Your task to perform on an android device: Go to privacy settings Image 0: 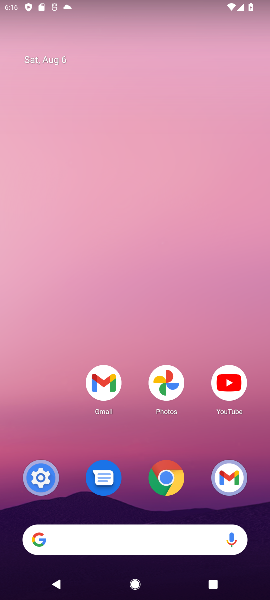
Step 0: press home button
Your task to perform on an android device: Go to privacy settings Image 1: 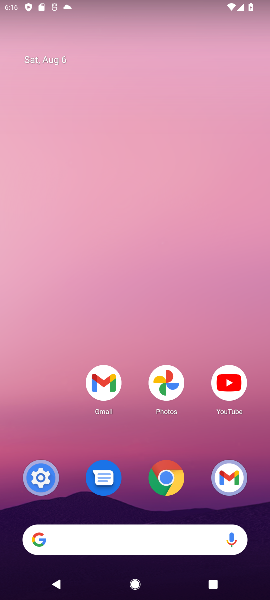
Step 1: click (36, 479)
Your task to perform on an android device: Go to privacy settings Image 2: 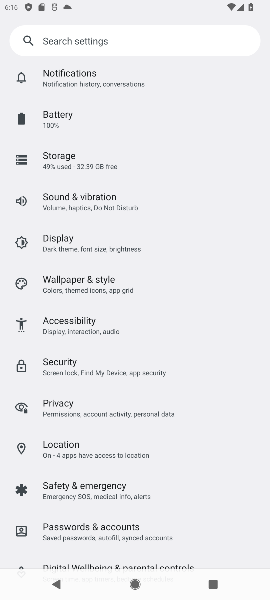
Step 2: click (64, 407)
Your task to perform on an android device: Go to privacy settings Image 3: 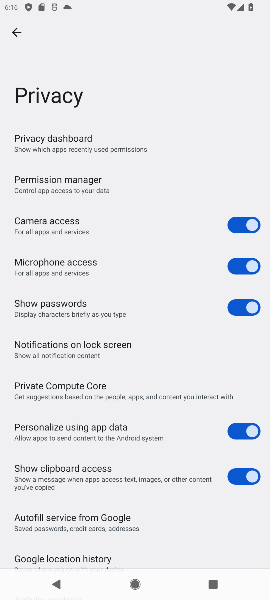
Step 3: task complete